Your task to perform on an android device: move a message to another label in the gmail app Image 0: 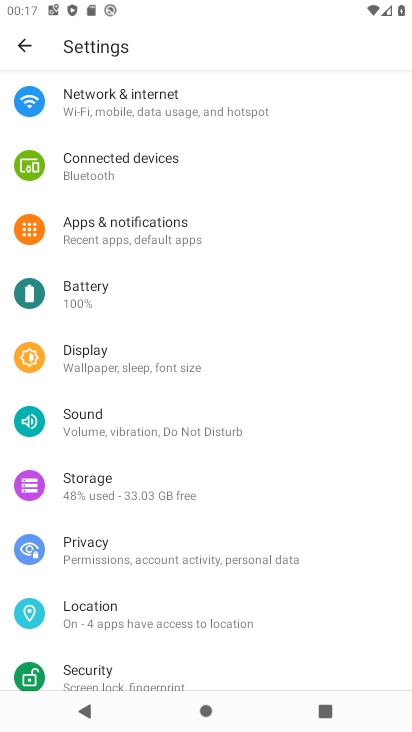
Step 0: press home button
Your task to perform on an android device: move a message to another label in the gmail app Image 1: 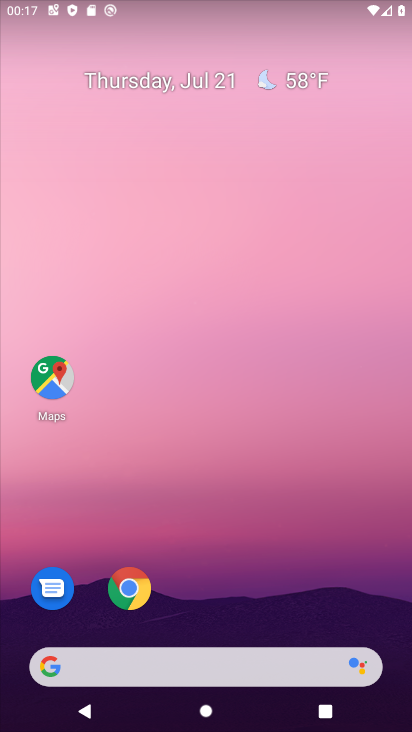
Step 1: drag from (262, 511) to (244, 32)
Your task to perform on an android device: move a message to another label in the gmail app Image 2: 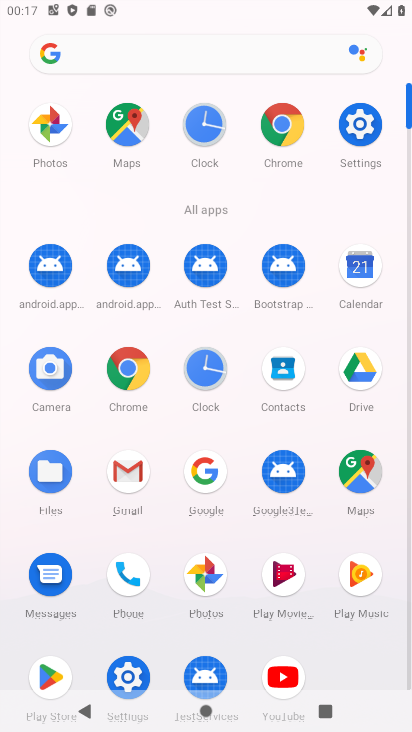
Step 2: click (137, 488)
Your task to perform on an android device: move a message to another label in the gmail app Image 3: 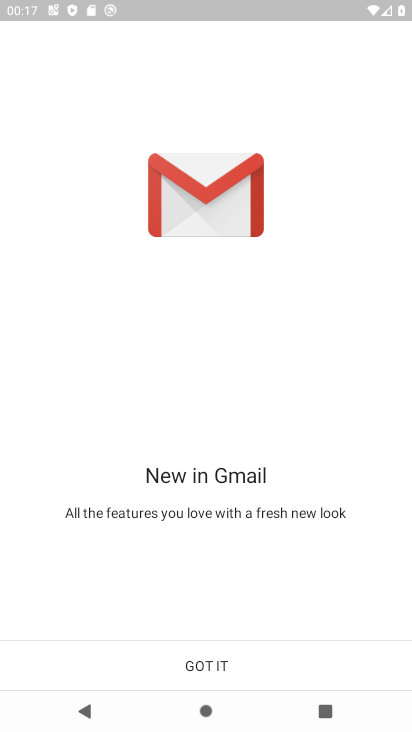
Step 3: click (169, 660)
Your task to perform on an android device: move a message to another label in the gmail app Image 4: 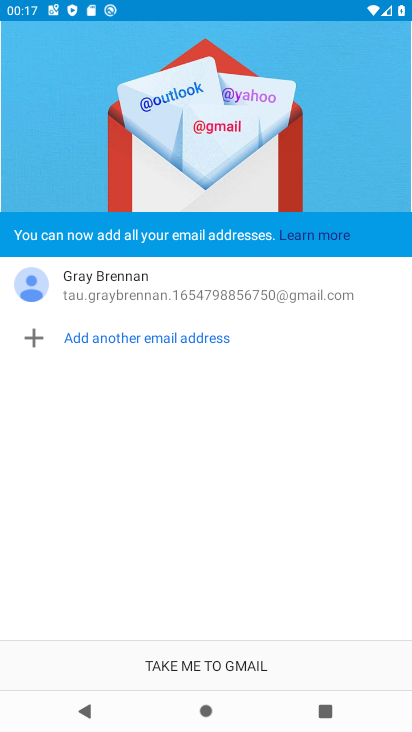
Step 4: click (149, 671)
Your task to perform on an android device: move a message to another label in the gmail app Image 5: 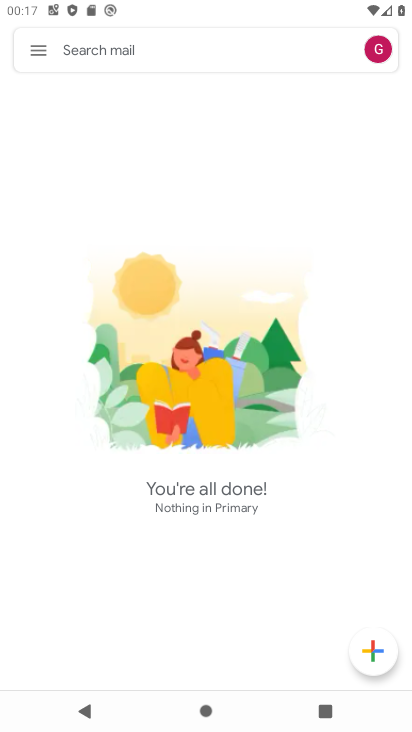
Step 5: click (24, 48)
Your task to perform on an android device: move a message to another label in the gmail app Image 6: 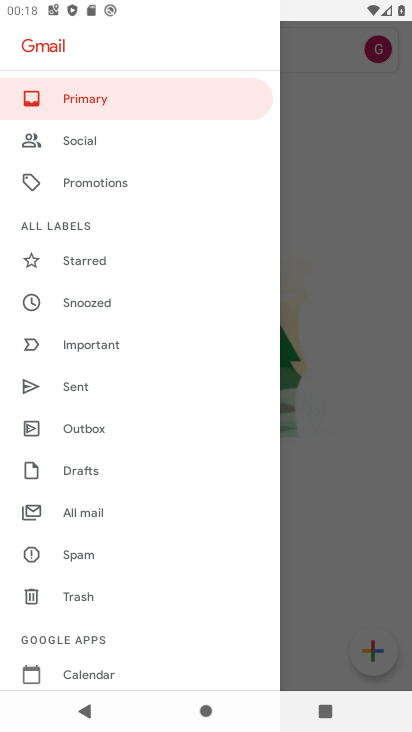
Step 6: click (393, 273)
Your task to perform on an android device: move a message to another label in the gmail app Image 7: 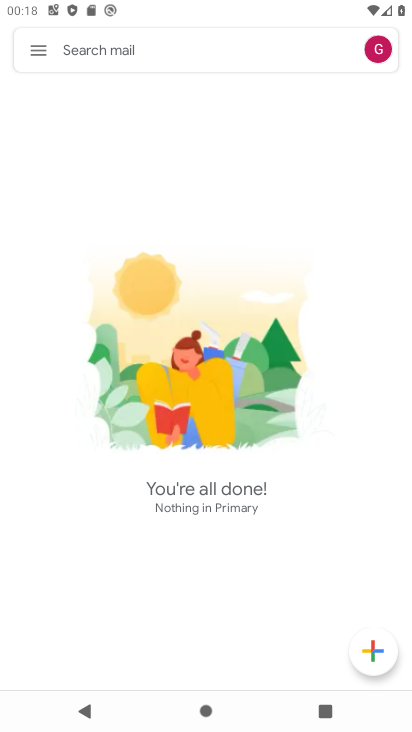
Step 7: task complete